Your task to perform on an android device: open app "LinkedIn" Image 0: 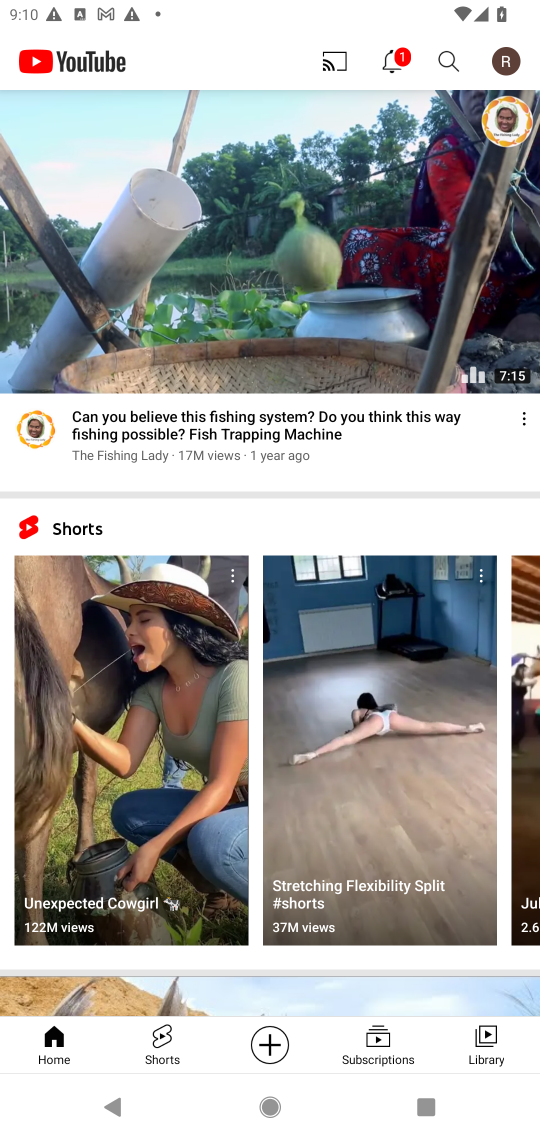
Step 0: press home button
Your task to perform on an android device: open app "LinkedIn" Image 1: 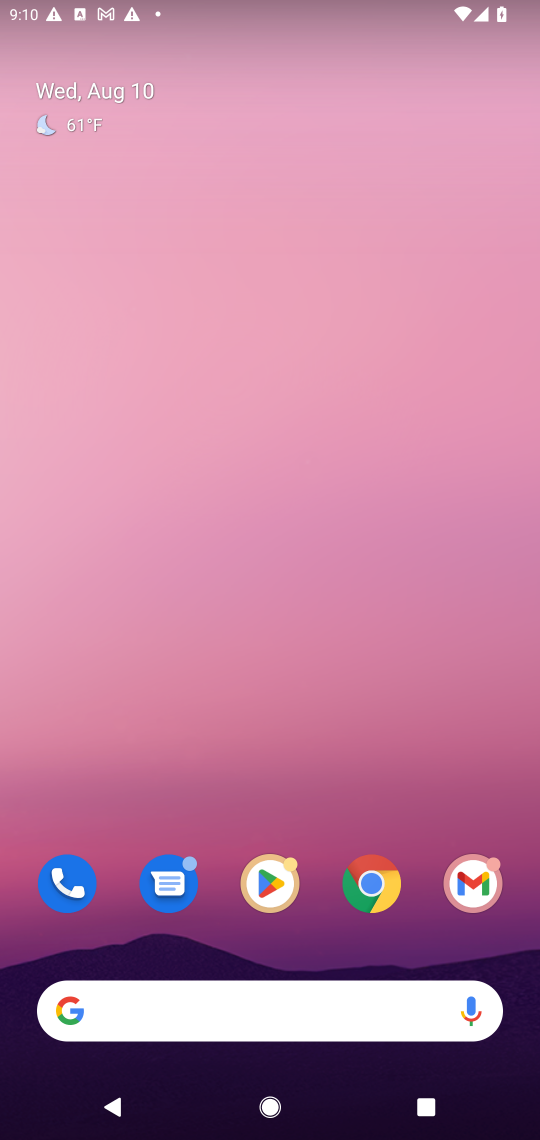
Step 1: click (287, 874)
Your task to perform on an android device: open app "LinkedIn" Image 2: 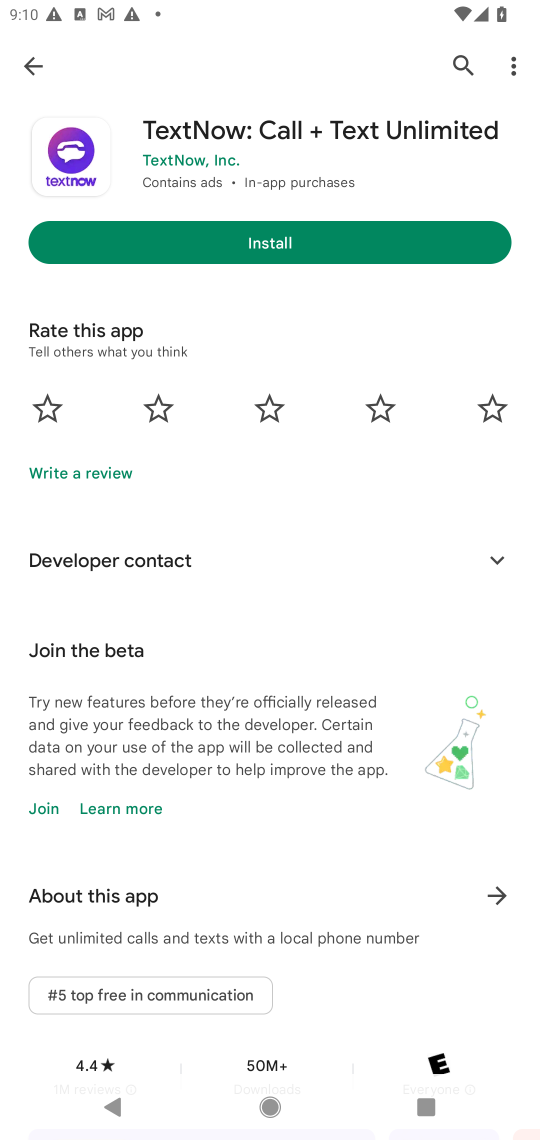
Step 2: click (452, 63)
Your task to perform on an android device: open app "LinkedIn" Image 3: 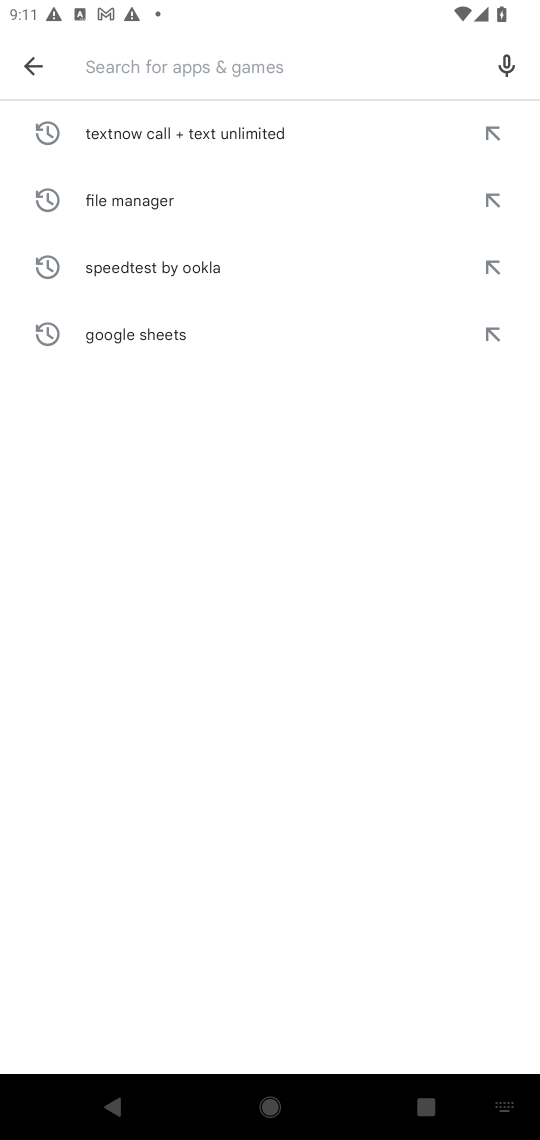
Step 3: type "LinkedIn"
Your task to perform on an android device: open app "LinkedIn" Image 4: 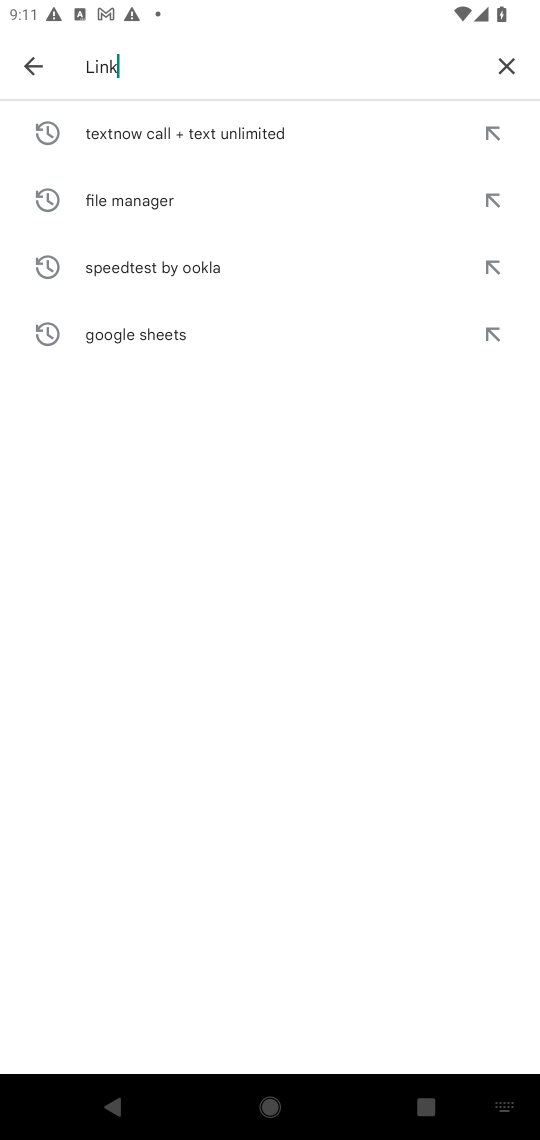
Step 4: type ""
Your task to perform on an android device: open app "LinkedIn" Image 5: 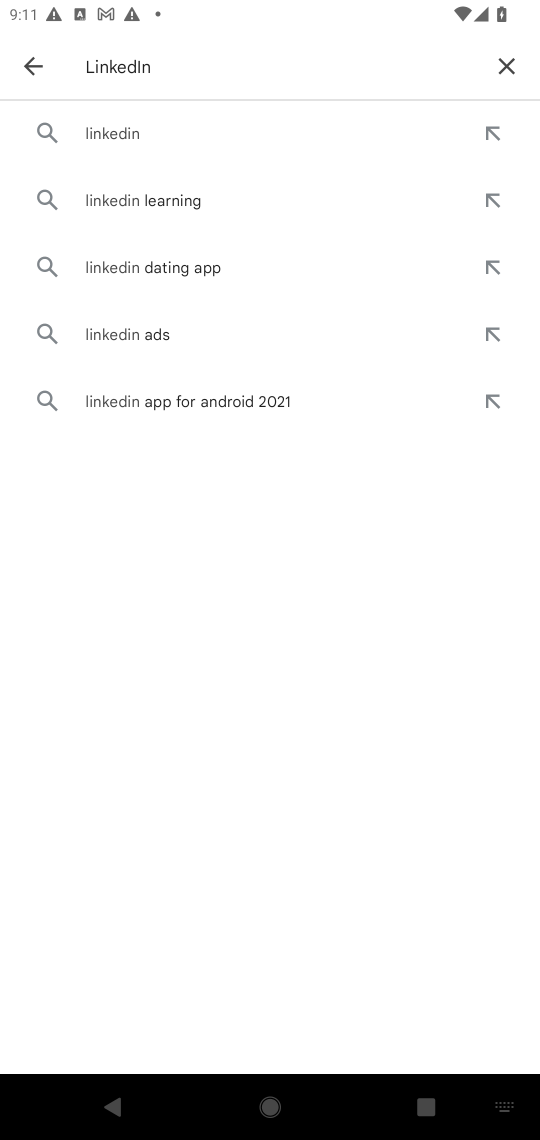
Step 5: click (204, 122)
Your task to perform on an android device: open app "LinkedIn" Image 6: 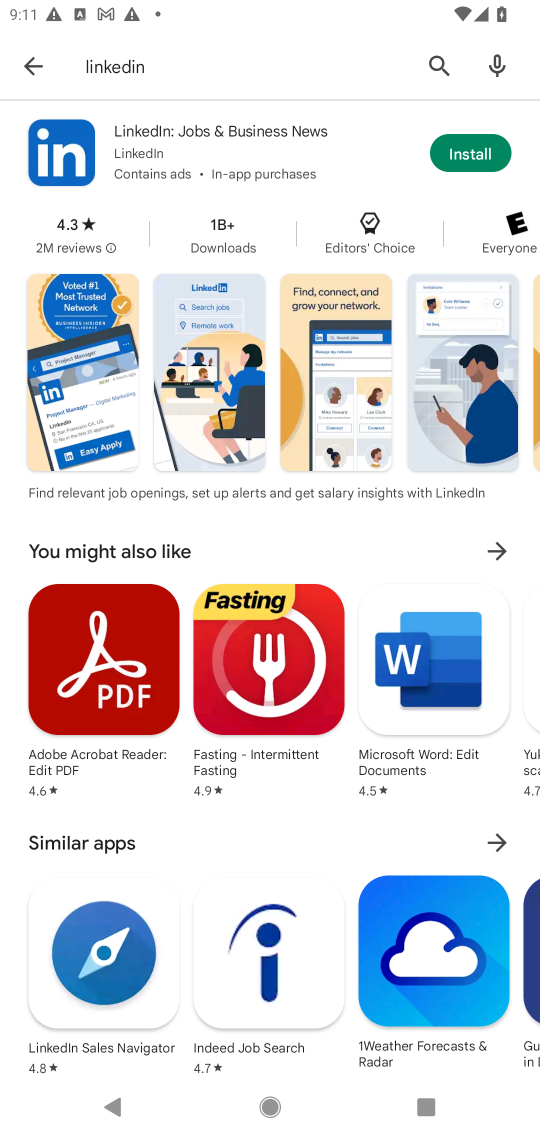
Step 6: task complete